Your task to perform on an android device: open app "DoorDash - Food Delivery" Image 0: 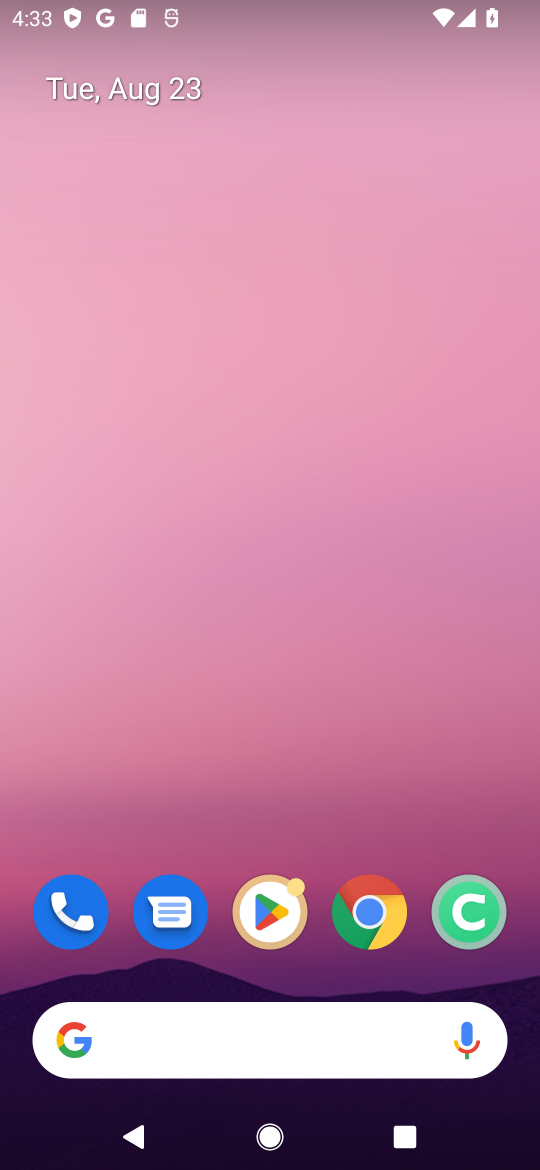
Step 0: drag from (198, 966) to (204, 268)
Your task to perform on an android device: open app "DoorDash - Food Delivery" Image 1: 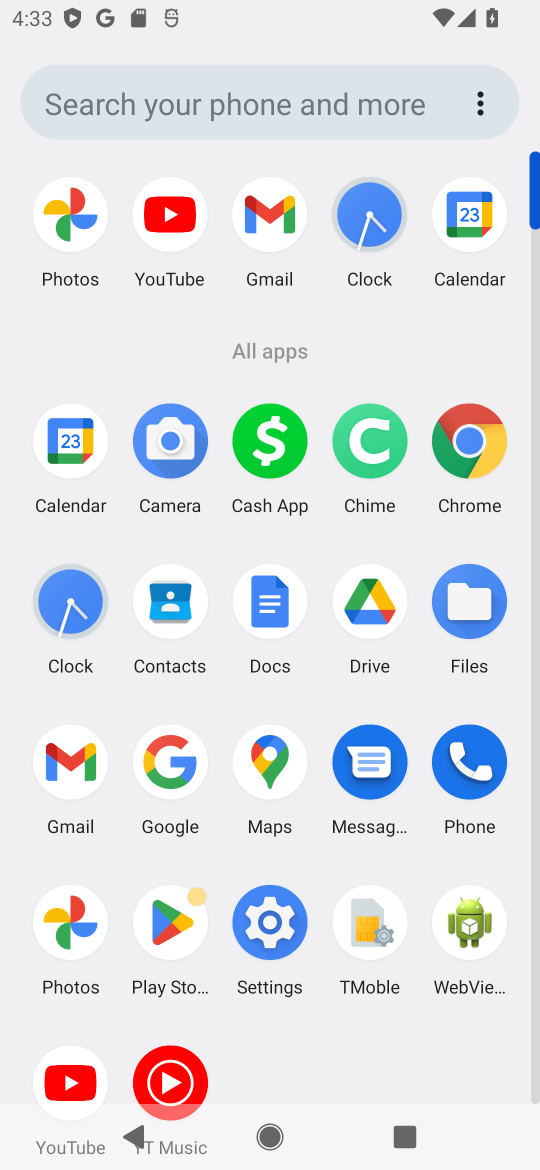
Step 1: click (180, 931)
Your task to perform on an android device: open app "DoorDash - Food Delivery" Image 2: 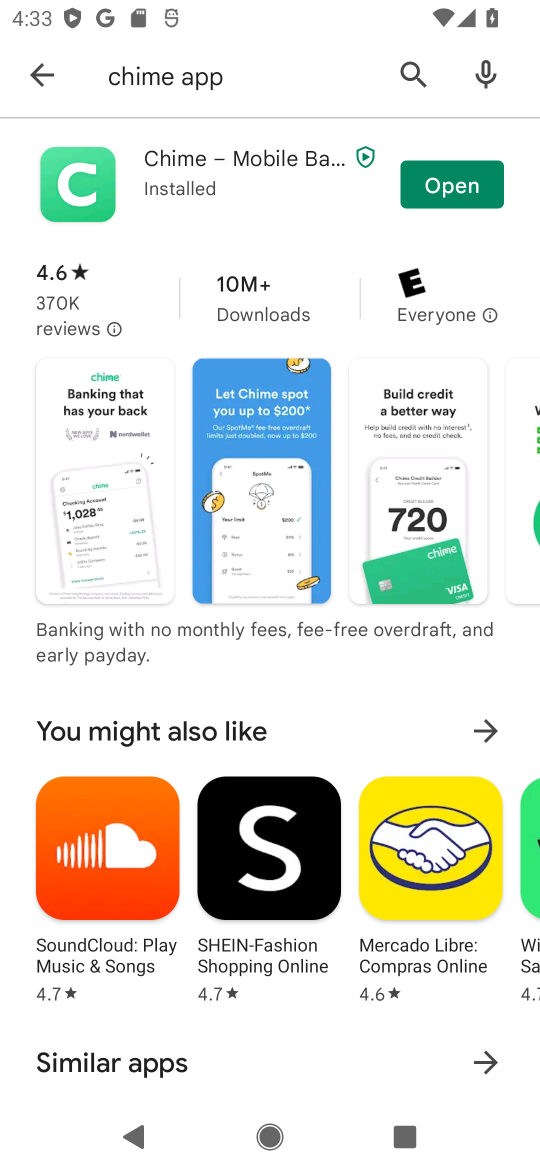
Step 2: click (45, 65)
Your task to perform on an android device: open app "DoorDash - Food Delivery" Image 3: 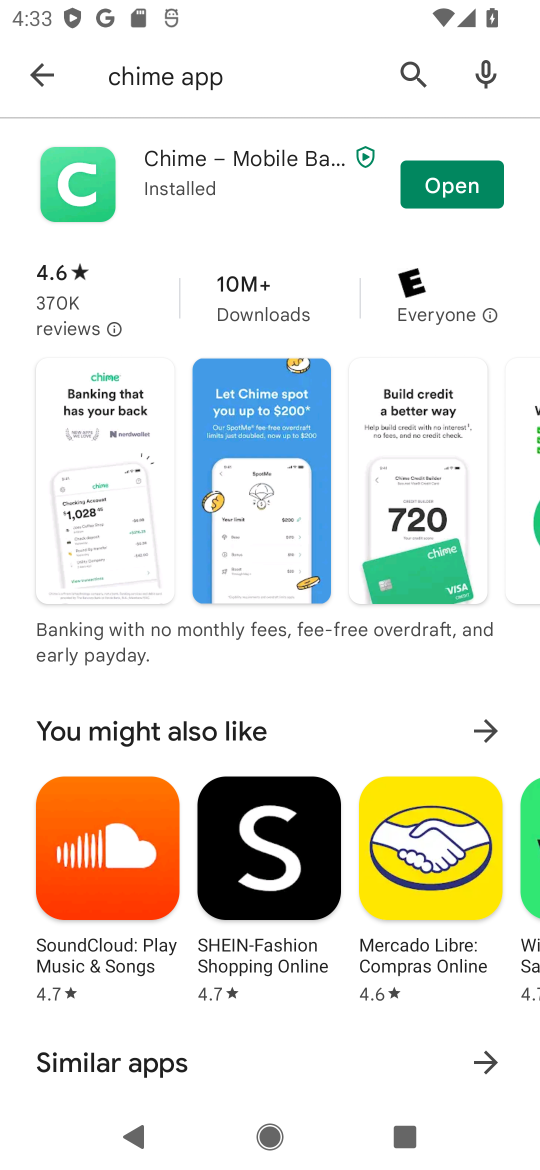
Step 3: click (42, 65)
Your task to perform on an android device: open app "DoorDash - Food Delivery" Image 4: 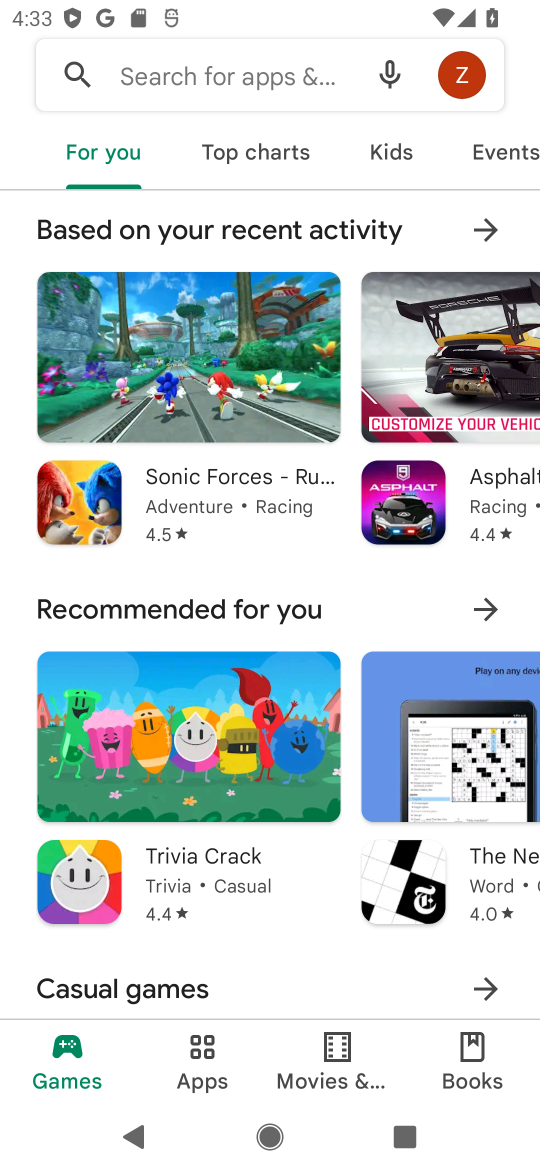
Step 4: click (196, 63)
Your task to perform on an android device: open app "DoorDash - Food Delivery" Image 5: 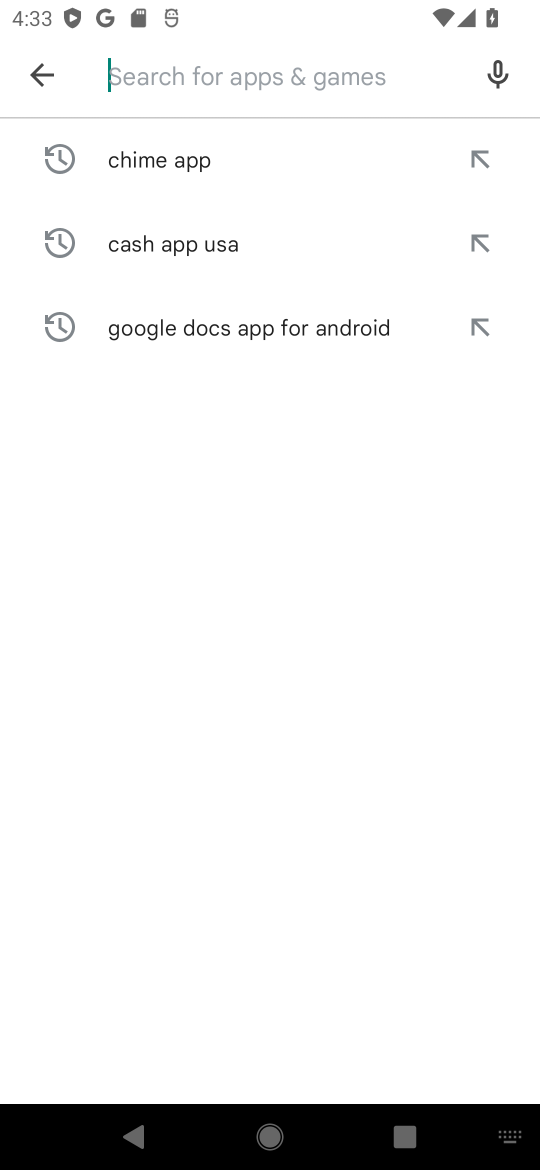
Step 5: click (267, 84)
Your task to perform on an android device: open app "DoorDash - Food Delivery" Image 6: 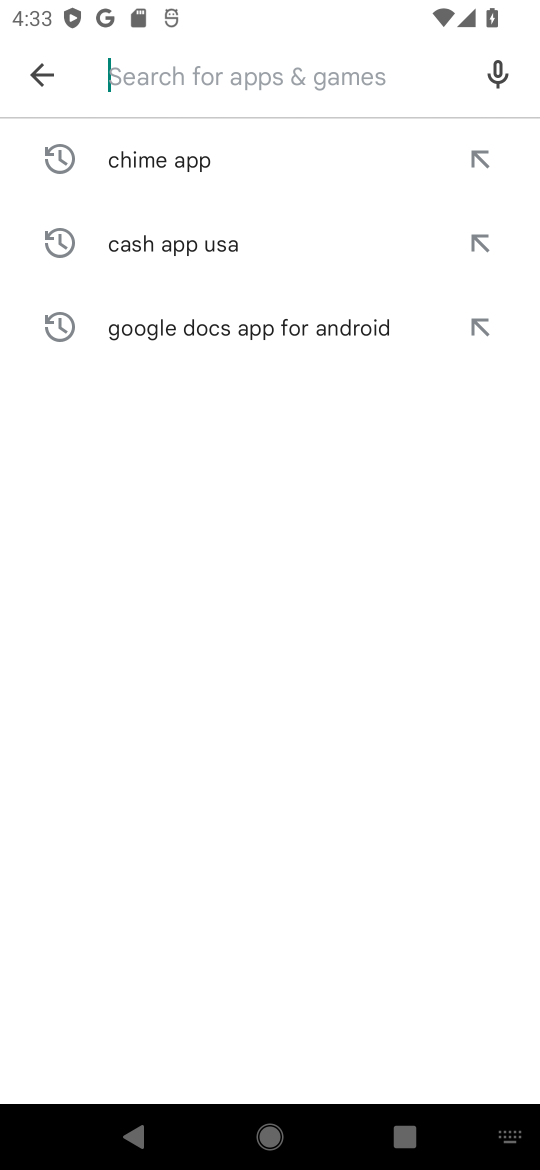
Step 6: type "DoorDash "
Your task to perform on an android device: open app "DoorDash - Food Delivery" Image 7: 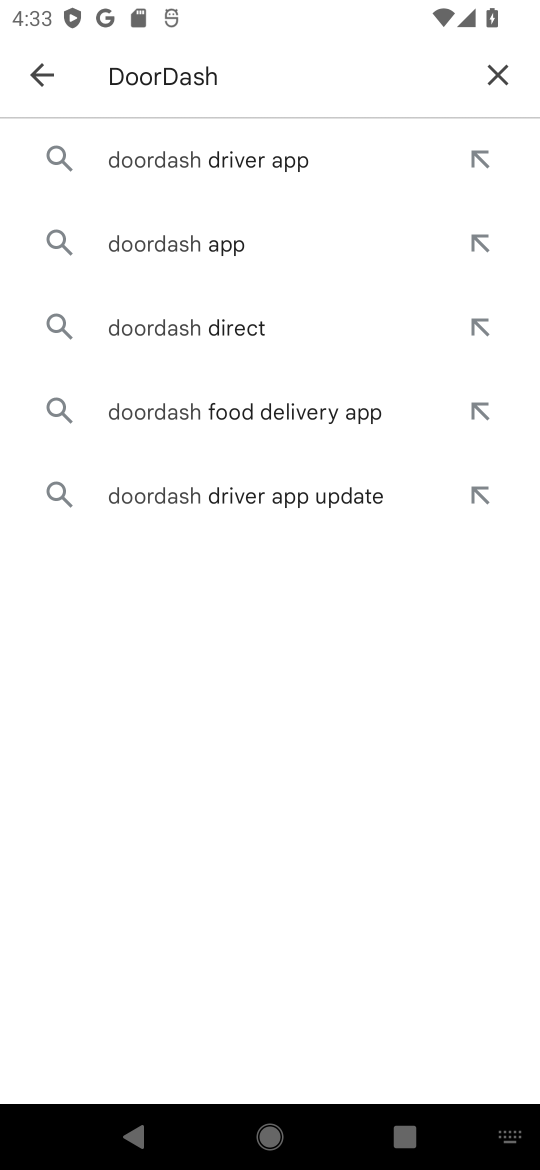
Step 7: click (182, 256)
Your task to perform on an android device: open app "DoorDash - Food Delivery" Image 8: 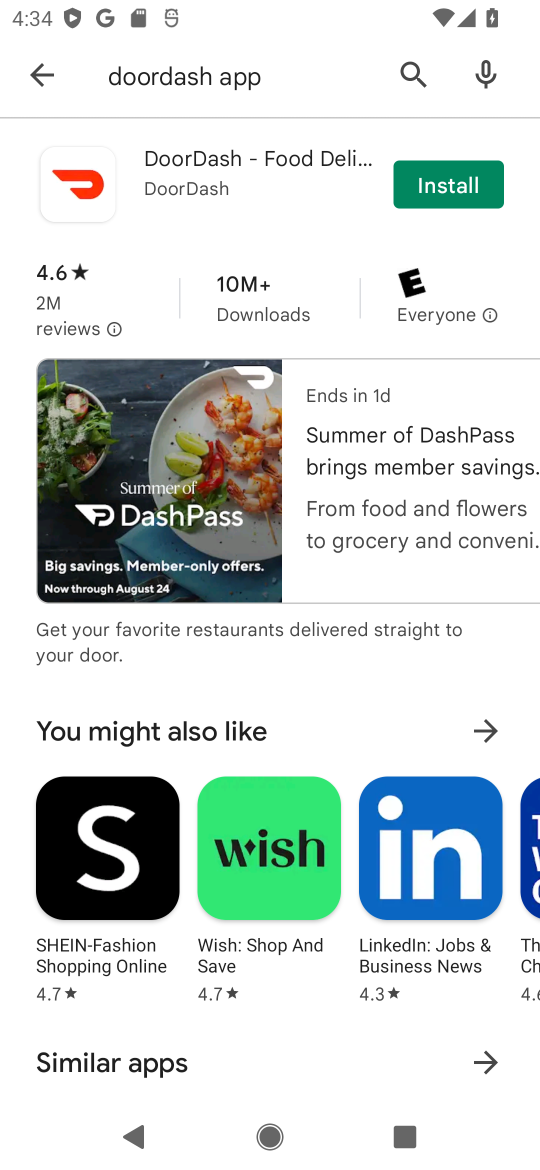
Step 8: click (413, 185)
Your task to perform on an android device: open app "DoorDash - Food Delivery" Image 9: 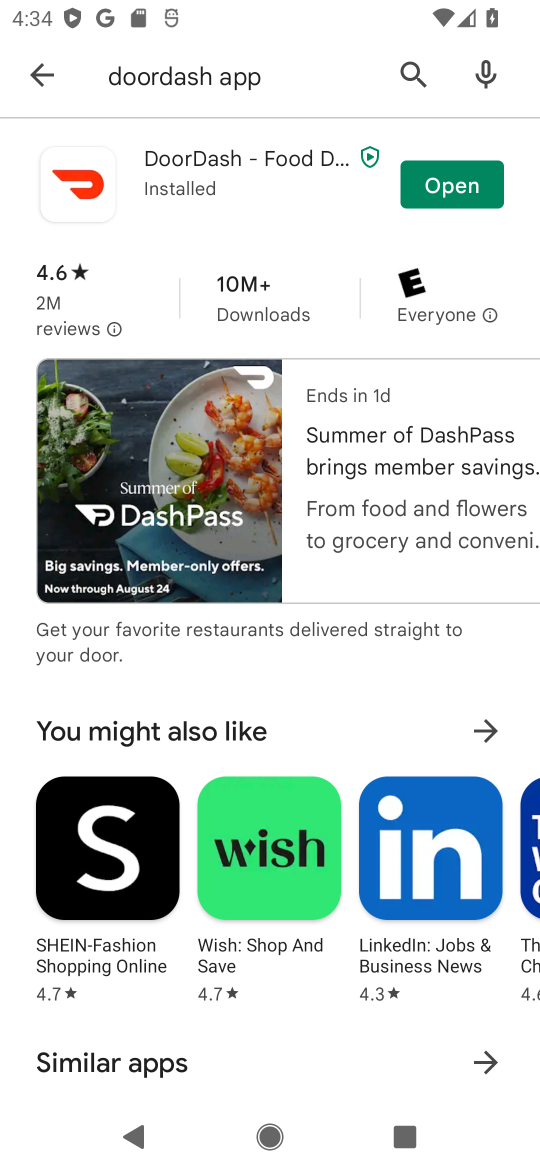
Step 9: click (446, 167)
Your task to perform on an android device: open app "DoorDash - Food Delivery" Image 10: 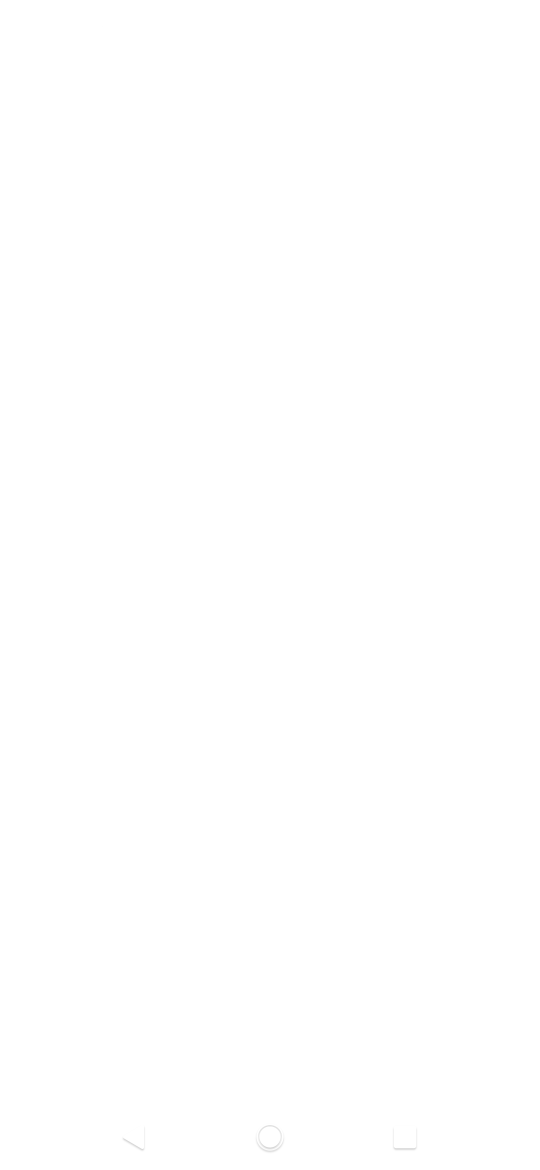
Step 10: task complete